Your task to perform on an android device: Go to Wikipedia Image 0: 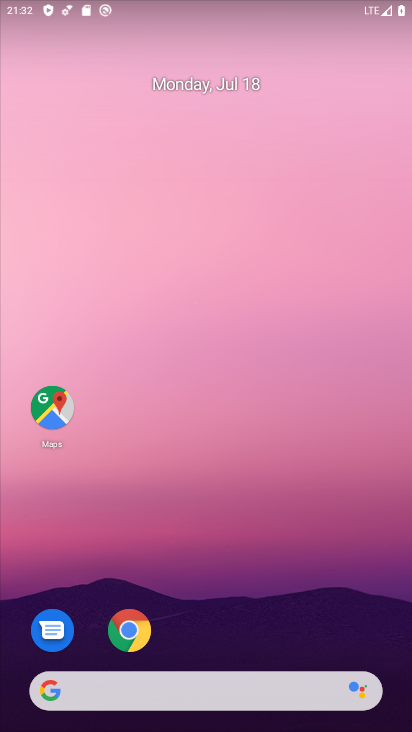
Step 0: drag from (223, 641) to (257, 264)
Your task to perform on an android device: Go to Wikipedia Image 1: 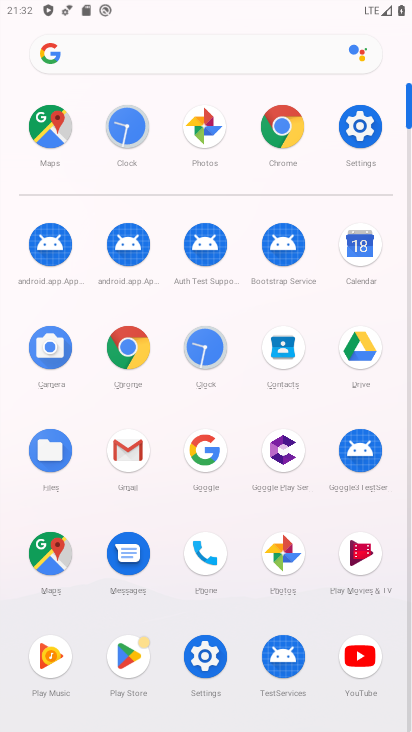
Step 1: click (279, 127)
Your task to perform on an android device: Go to Wikipedia Image 2: 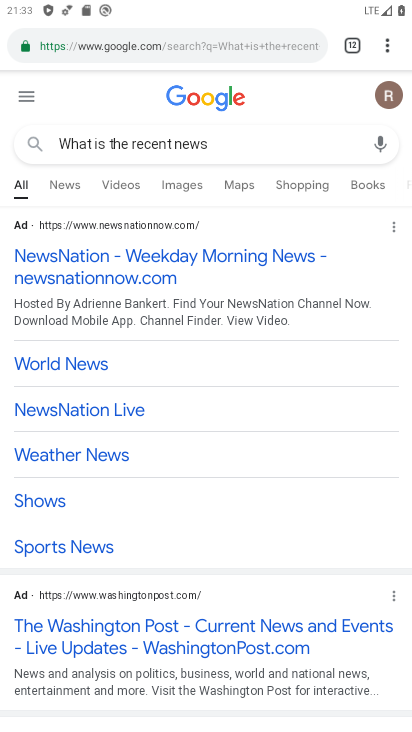
Step 2: click (388, 43)
Your task to perform on an android device: Go to Wikipedia Image 3: 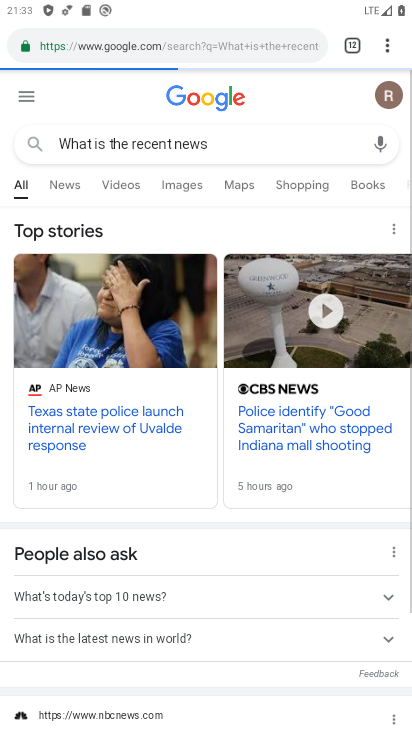
Step 3: click (388, 43)
Your task to perform on an android device: Go to Wikipedia Image 4: 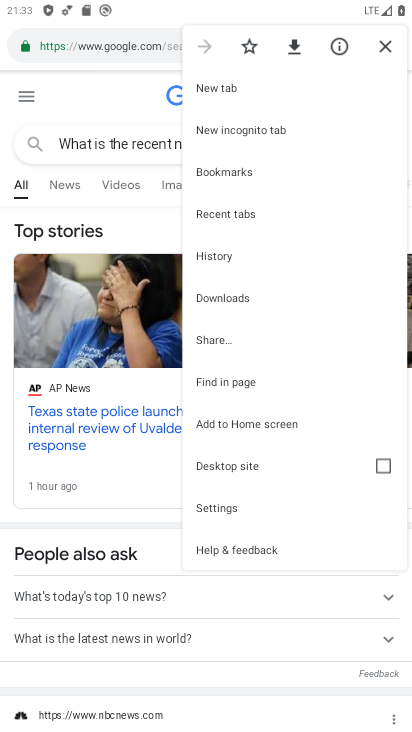
Step 4: click (225, 88)
Your task to perform on an android device: Go to Wikipedia Image 5: 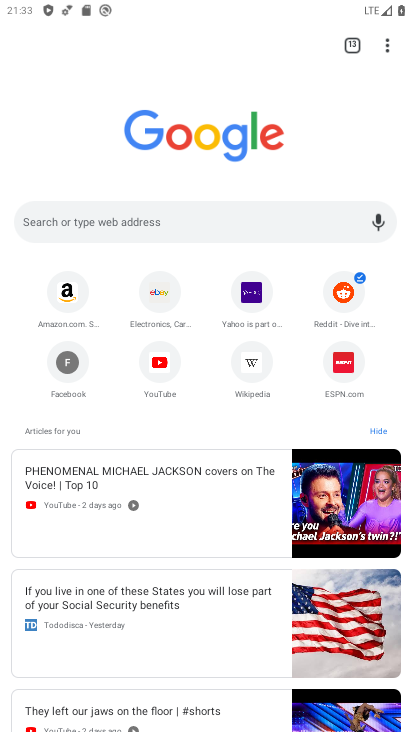
Step 5: click (242, 360)
Your task to perform on an android device: Go to Wikipedia Image 6: 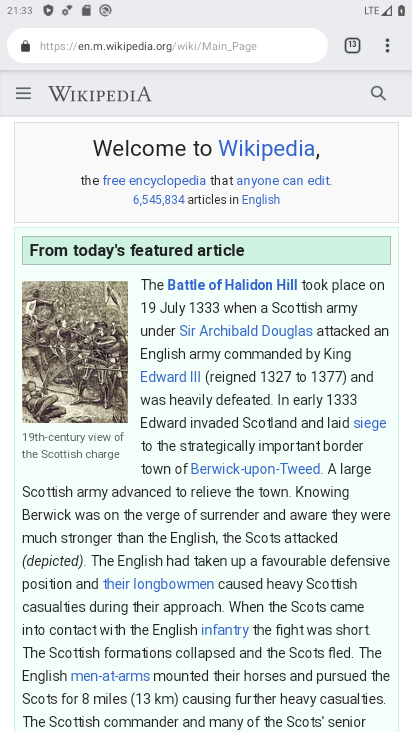
Step 6: task complete